Your task to perform on an android device: read, delete, or share a saved page in the chrome app Image 0: 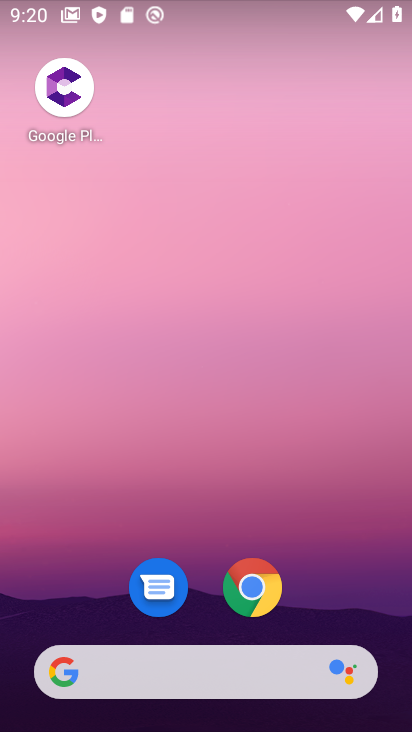
Step 0: drag from (215, 669) to (209, 149)
Your task to perform on an android device: read, delete, or share a saved page in the chrome app Image 1: 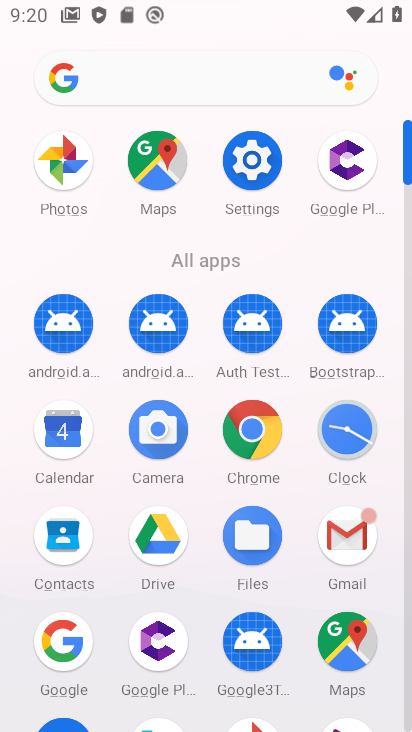
Step 1: click (256, 429)
Your task to perform on an android device: read, delete, or share a saved page in the chrome app Image 2: 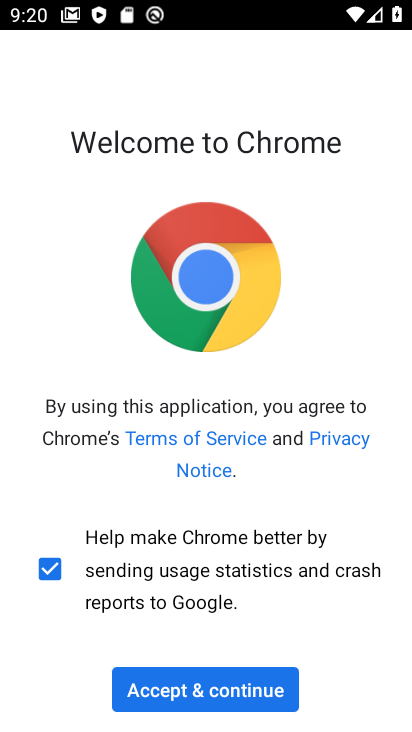
Step 2: click (183, 675)
Your task to perform on an android device: read, delete, or share a saved page in the chrome app Image 3: 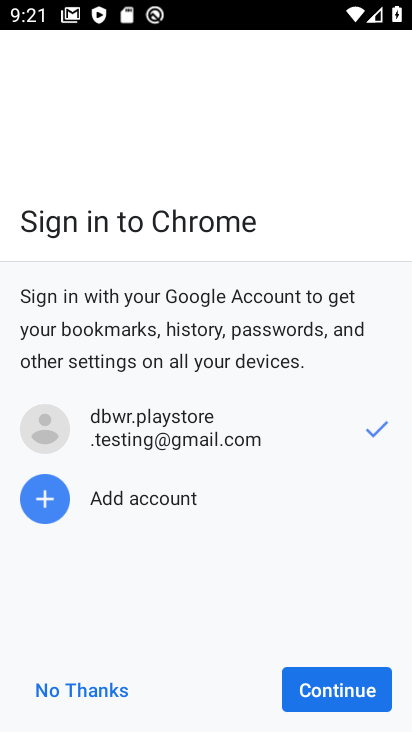
Step 3: click (360, 685)
Your task to perform on an android device: read, delete, or share a saved page in the chrome app Image 4: 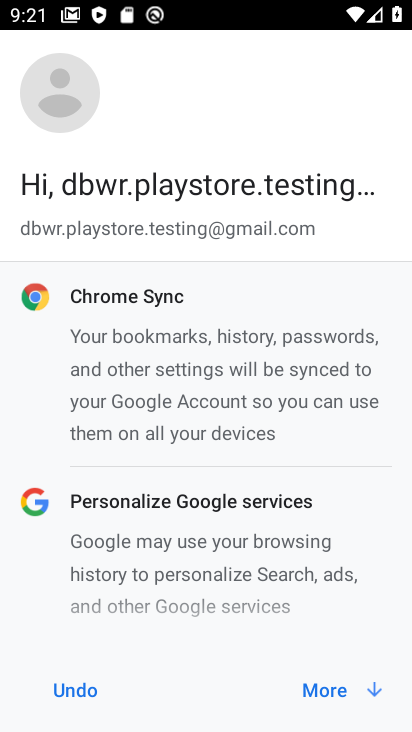
Step 4: click (358, 685)
Your task to perform on an android device: read, delete, or share a saved page in the chrome app Image 5: 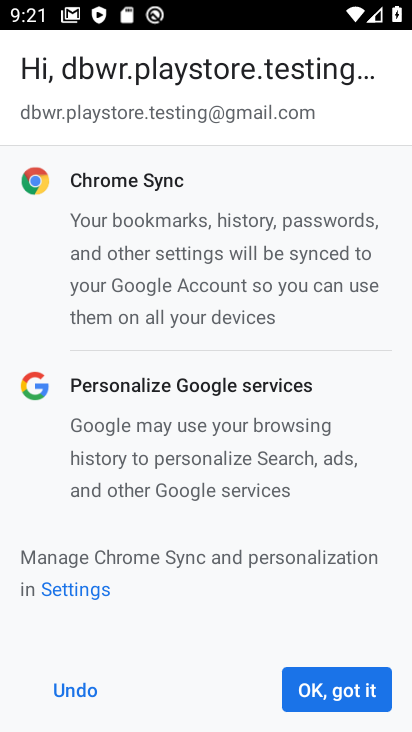
Step 5: click (380, 693)
Your task to perform on an android device: read, delete, or share a saved page in the chrome app Image 6: 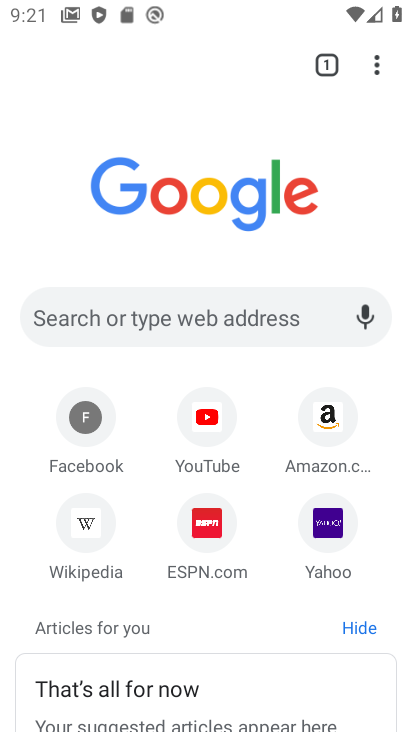
Step 6: click (381, 59)
Your task to perform on an android device: read, delete, or share a saved page in the chrome app Image 7: 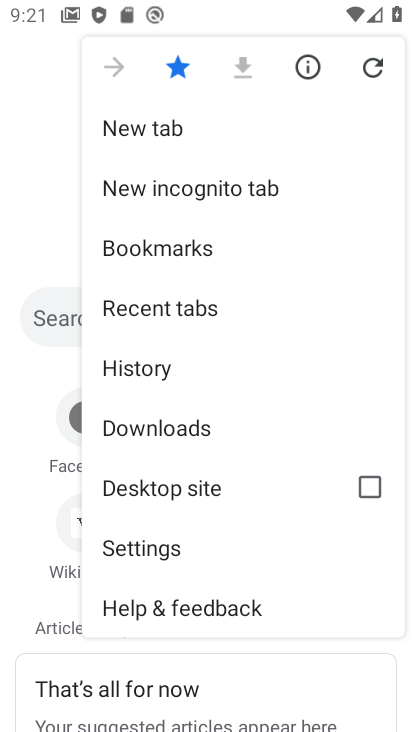
Step 7: click (189, 541)
Your task to perform on an android device: read, delete, or share a saved page in the chrome app Image 8: 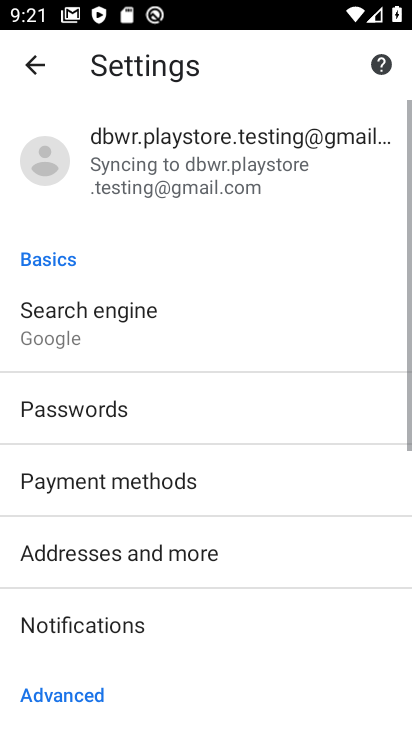
Step 8: drag from (143, 587) to (180, 261)
Your task to perform on an android device: read, delete, or share a saved page in the chrome app Image 9: 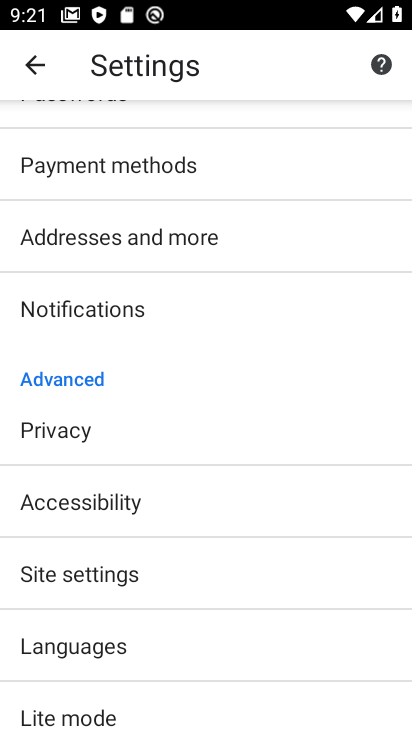
Step 9: drag from (127, 630) to (155, 357)
Your task to perform on an android device: read, delete, or share a saved page in the chrome app Image 10: 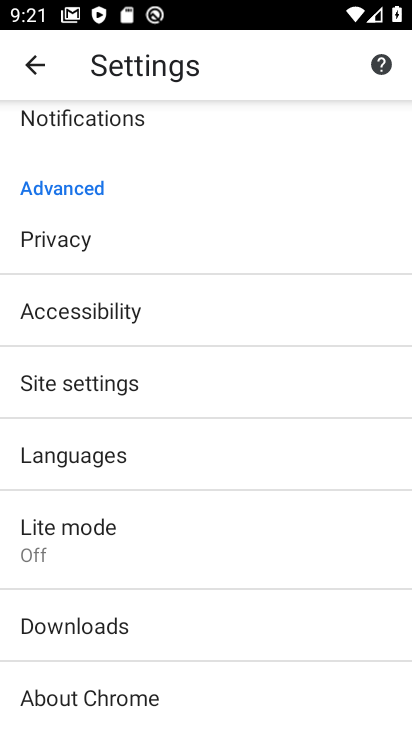
Step 10: click (89, 252)
Your task to perform on an android device: read, delete, or share a saved page in the chrome app Image 11: 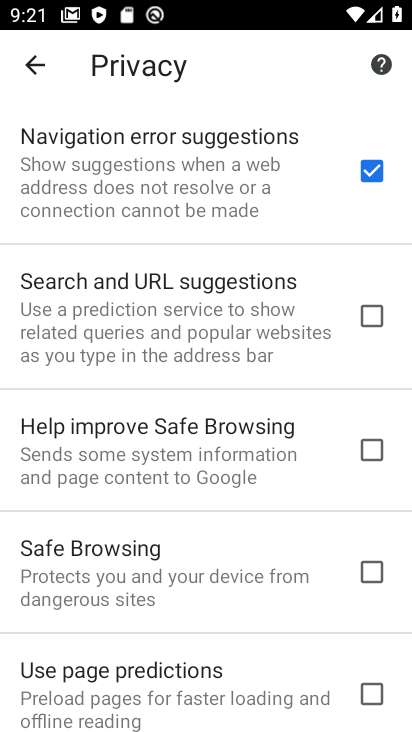
Step 11: drag from (194, 558) to (318, 121)
Your task to perform on an android device: read, delete, or share a saved page in the chrome app Image 12: 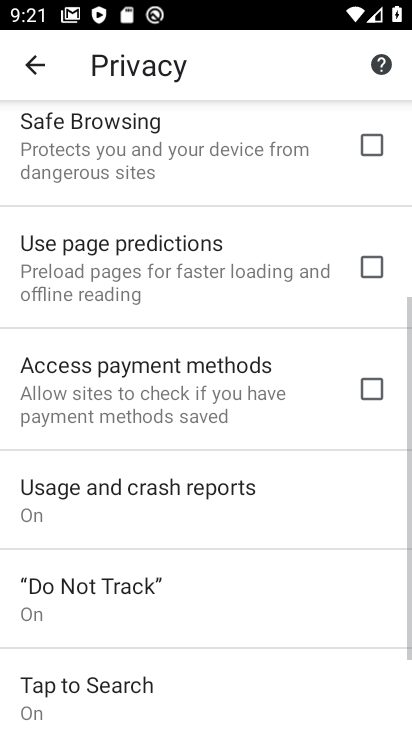
Step 12: drag from (188, 595) to (238, 241)
Your task to perform on an android device: read, delete, or share a saved page in the chrome app Image 13: 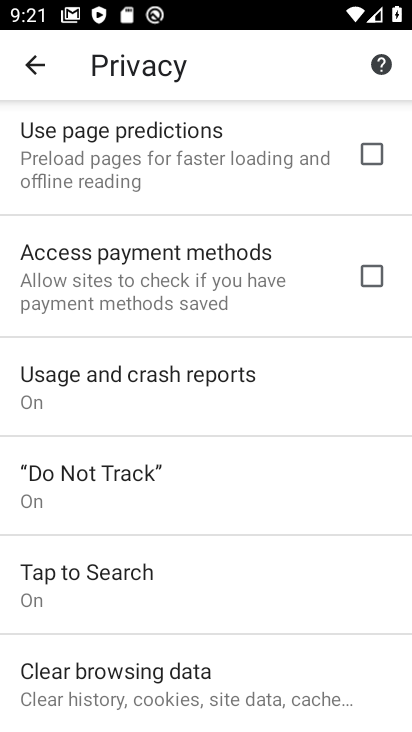
Step 13: click (138, 663)
Your task to perform on an android device: read, delete, or share a saved page in the chrome app Image 14: 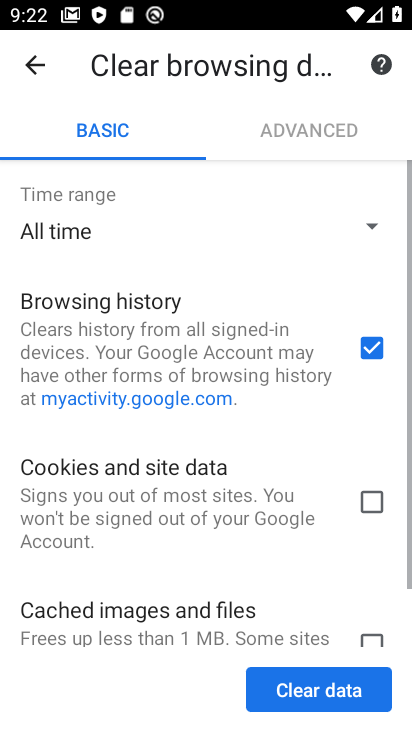
Step 14: click (328, 686)
Your task to perform on an android device: read, delete, or share a saved page in the chrome app Image 15: 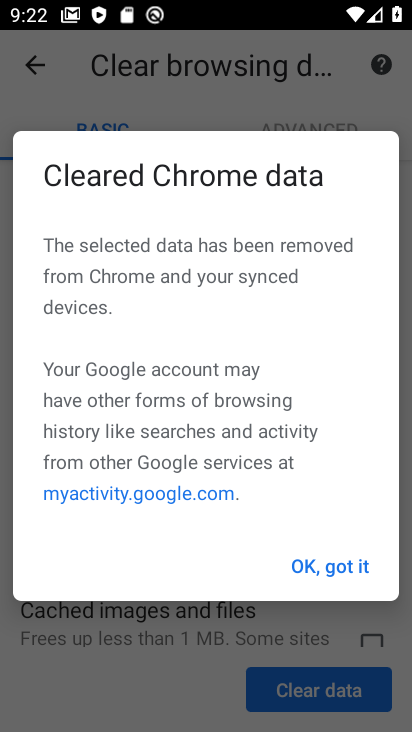
Step 15: task complete